Your task to perform on an android device: make emails show in primary in the gmail app Image 0: 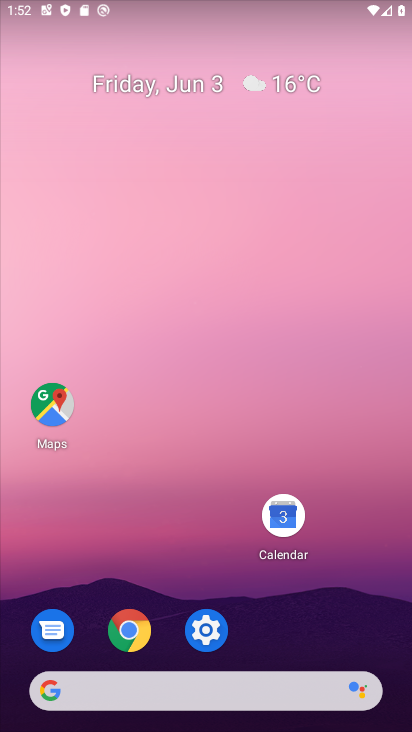
Step 0: drag from (218, 705) to (157, 204)
Your task to perform on an android device: make emails show in primary in the gmail app Image 1: 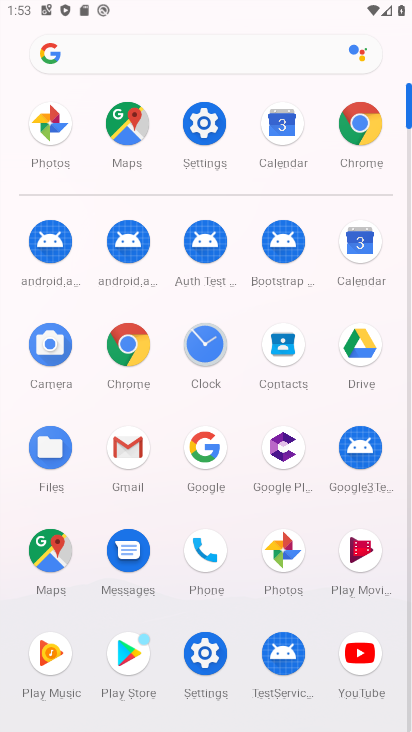
Step 1: click (128, 439)
Your task to perform on an android device: make emails show in primary in the gmail app Image 2: 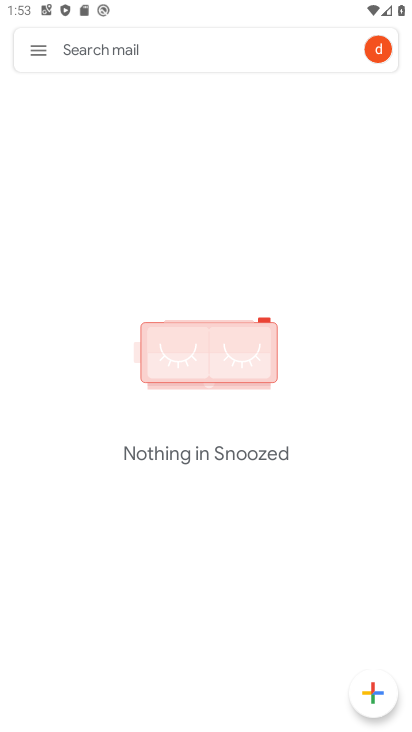
Step 2: click (35, 58)
Your task to perform on an android device: make emails show in primary in the gmail app Image 3: 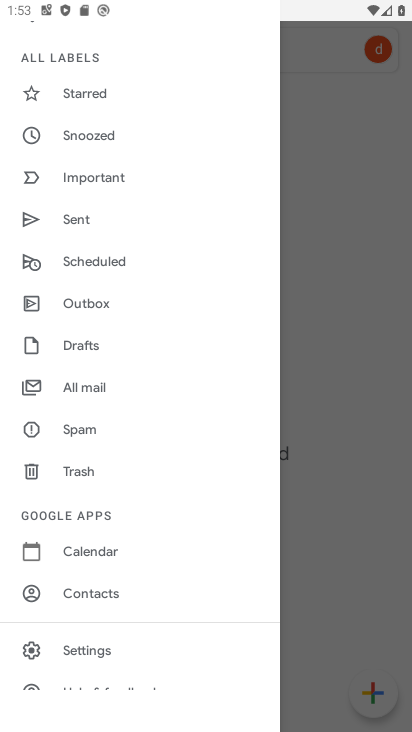
Step 3: click (89, 650)
Your task to perform on an android device: make emails show in primary in the gmail app Image 4: 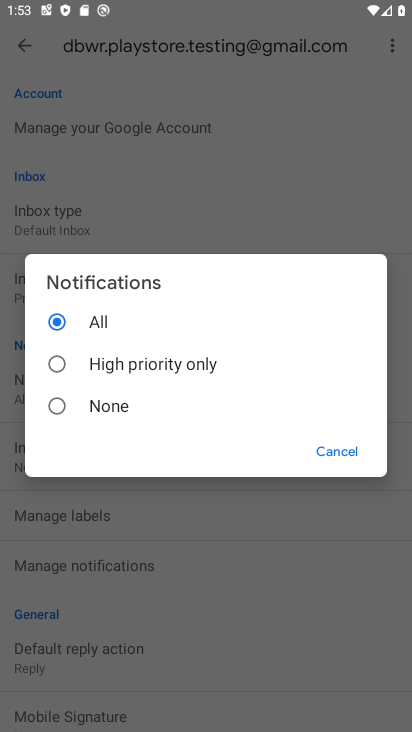
Step 4: click (333, 445)
Your task to perform on an android device: make emails show in primary in the gmail app Image 5: 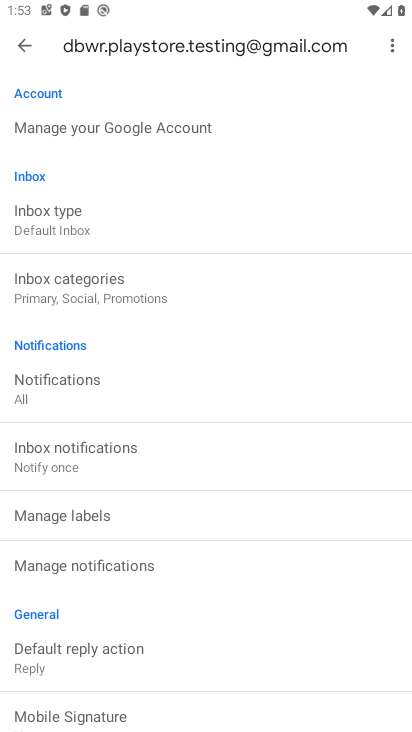
Step 5: drag from (128, 604) to (112, 460)
Your task to perform on an android device: make emails show in primary in the gmail app Image 6: 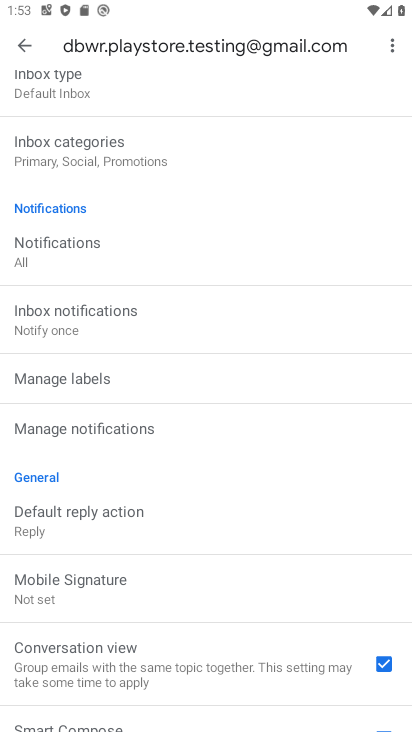
Step 6: drag from (150, 586) to (166, 462)
Your task to perform on an android device: make emails show in primary in the gmail app Image 7: 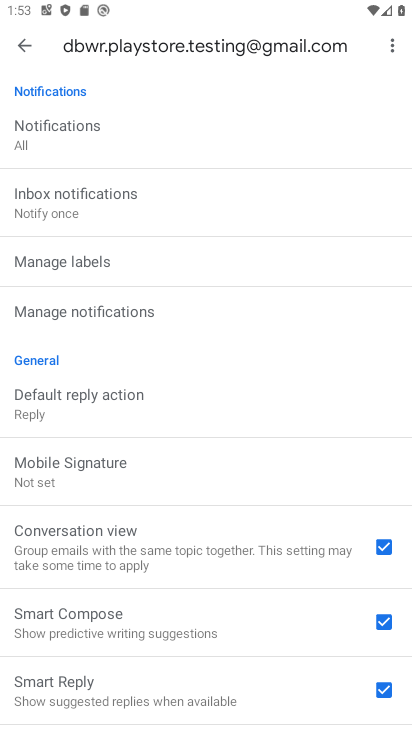
Step 7: drag from (66, 197) to (137, 555)
Your task to perform on an android device: make emails show in primary in the gmail app Image 8: 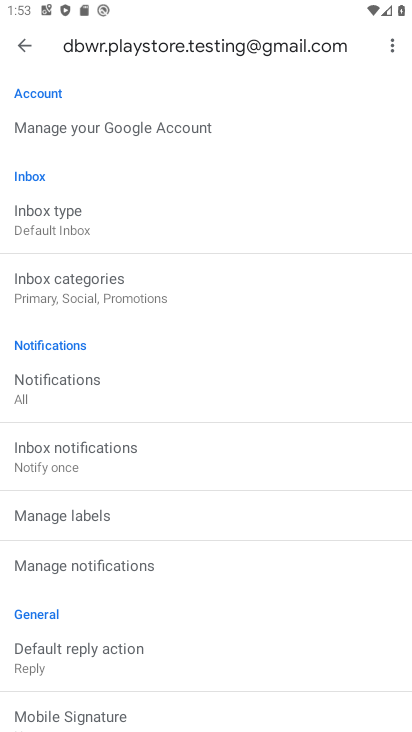
Step 8: drag from (69, 180) to (115, 268)
Your task to perform on an android device: make emails show in primary in the gmail app Image 9: 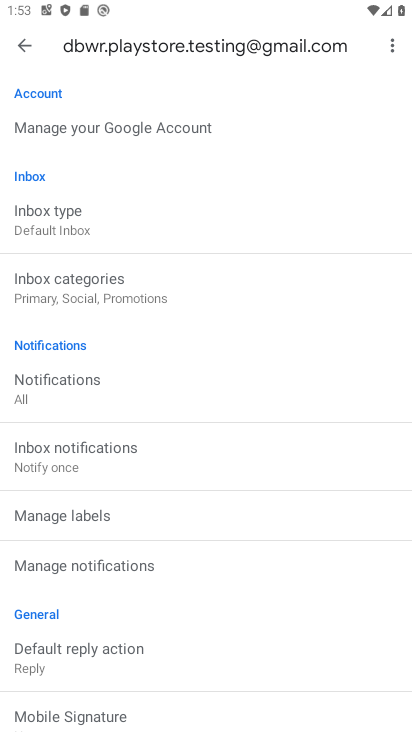
Step 9: click (58, 281)
Your task to perform on an android device: make emails show in primary in the gmail app Image 10: 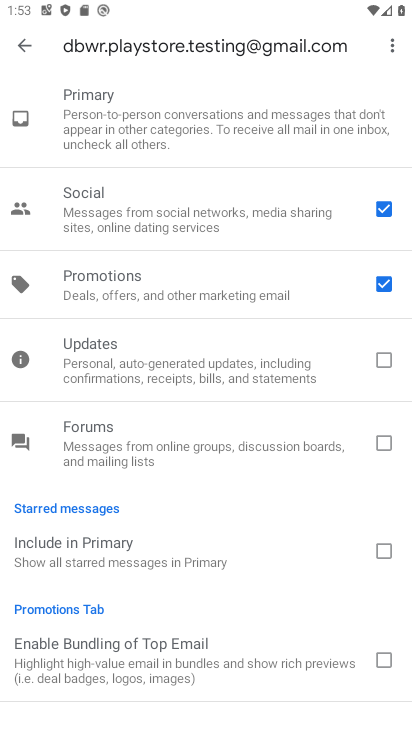
Step 10: task complete